Your task to perform on an android device: Search for "apple airpods" on target.com, select the first entry, and add it to the cart. Image 0: 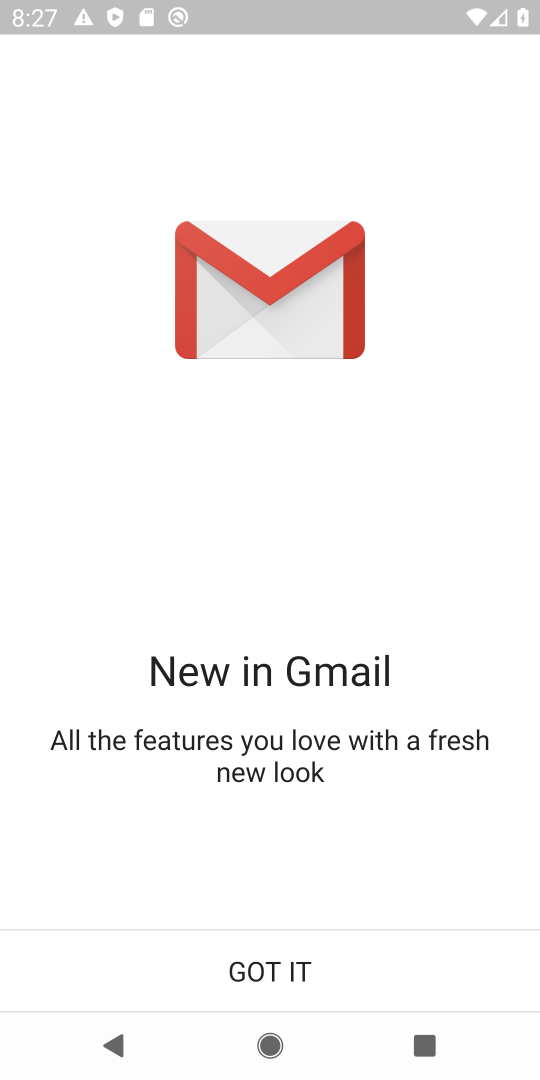
Step 0: click (307, 1003)
Your task to perform on an android device: Search for "apple airpods" on target.com, select the first entry, and add it to the cart. Image 1: 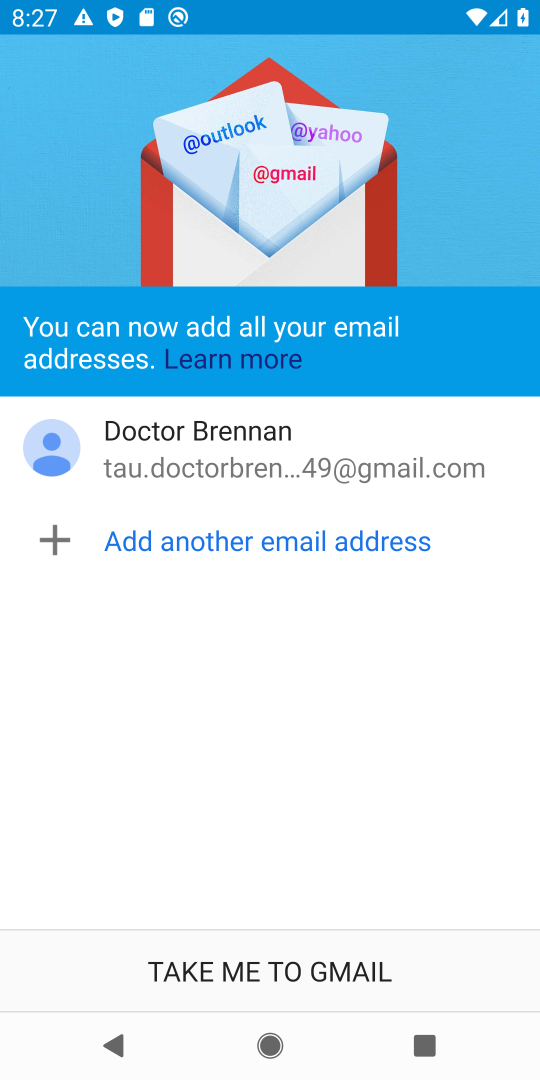
Step 1: press home button
Your task to perform on an android device: Search for "apple airpods" on target.com, select the first entry, and add it to the cart. Image 2: 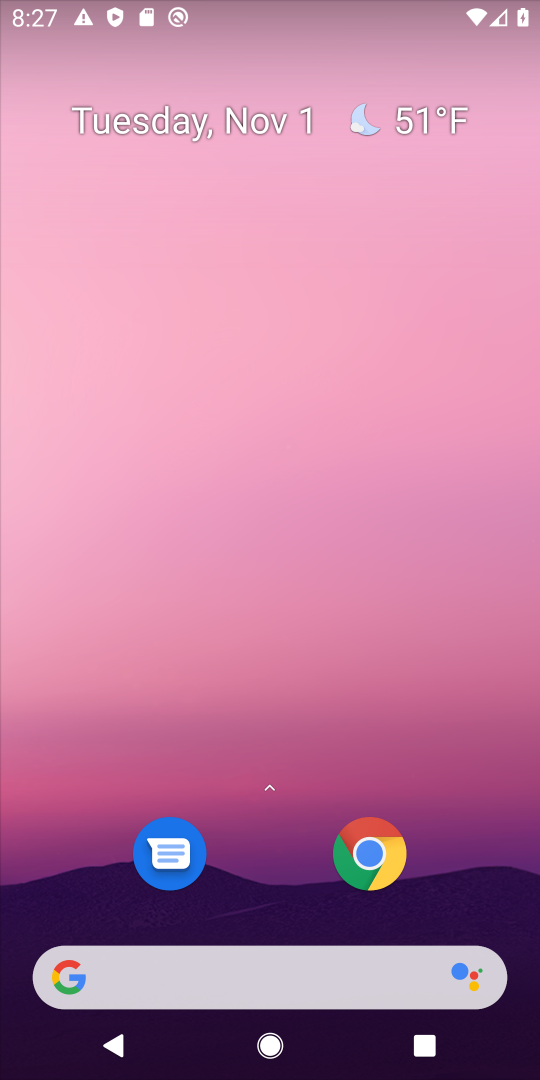
Step 2: click (241, 962)
Your task to perform on an android device: Search for "apple airpods" on target.com, select the first entry, and add it to the cart. Image 3: 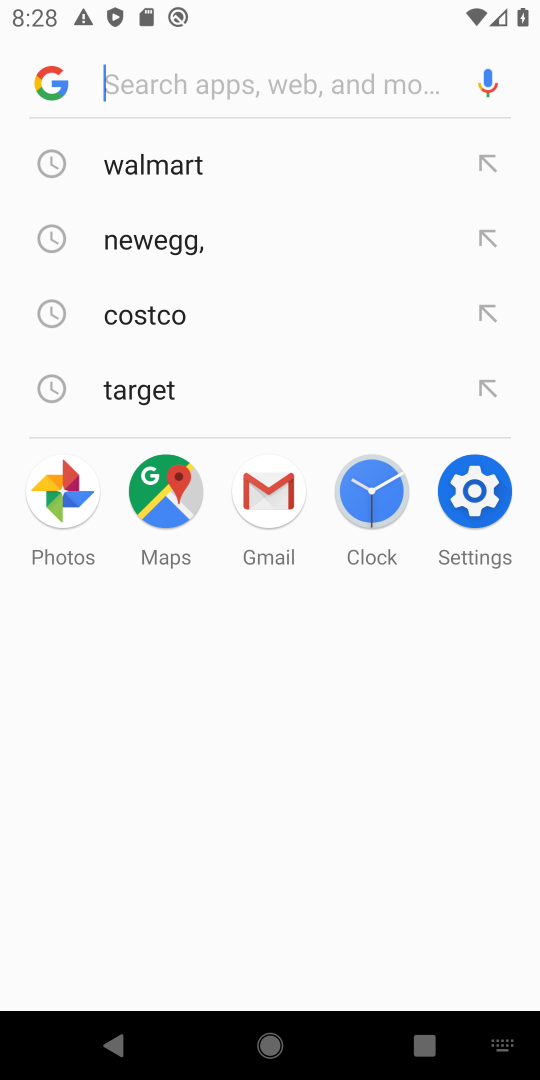
Step 3: click (260, 189)
Your task to perform on an android device: Search for "apple airpods" on target.com, select the first entry, and add it to the cart. Image 4: 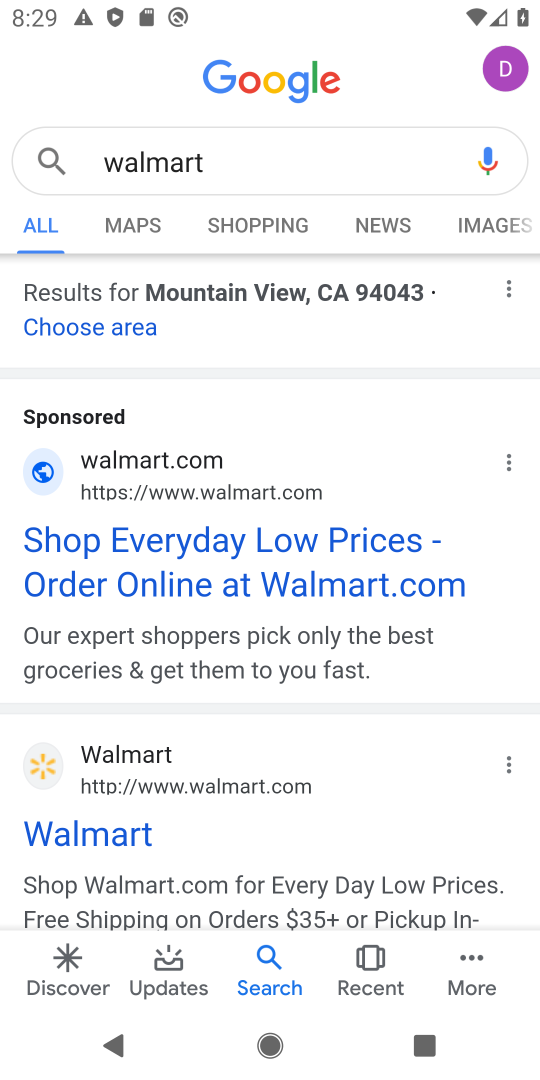
Step 4: click (147, 528)
Your task to perform on an android device: Search for "apple airpods" on target.com, select the first entry, and add it to the cart. Image 5: 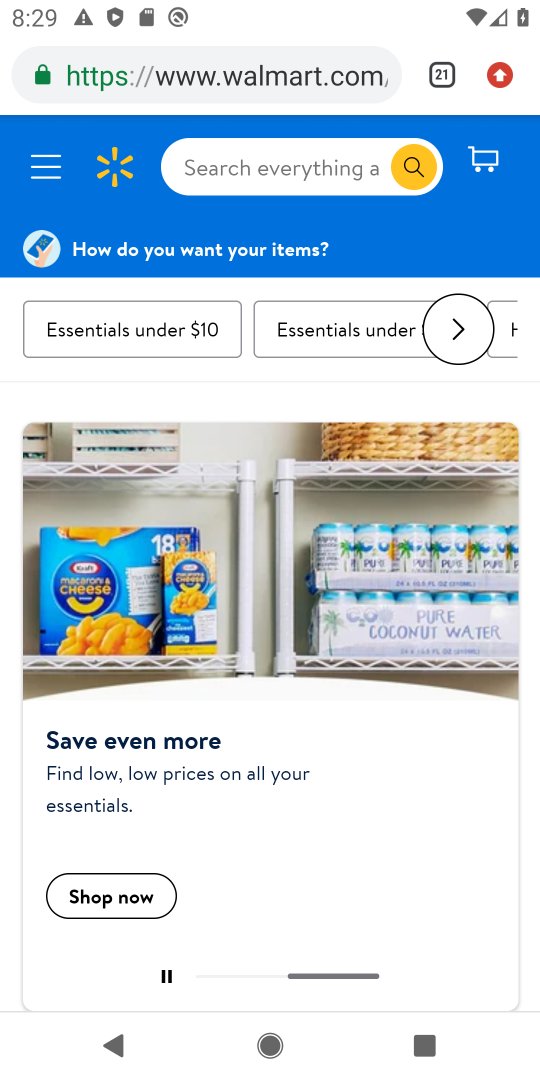
Step 5: click (307, 147)
Your task to perform on an android device: Search for "apple airpods" on target.com, select the first entry, and add it to the cart. Image 6: 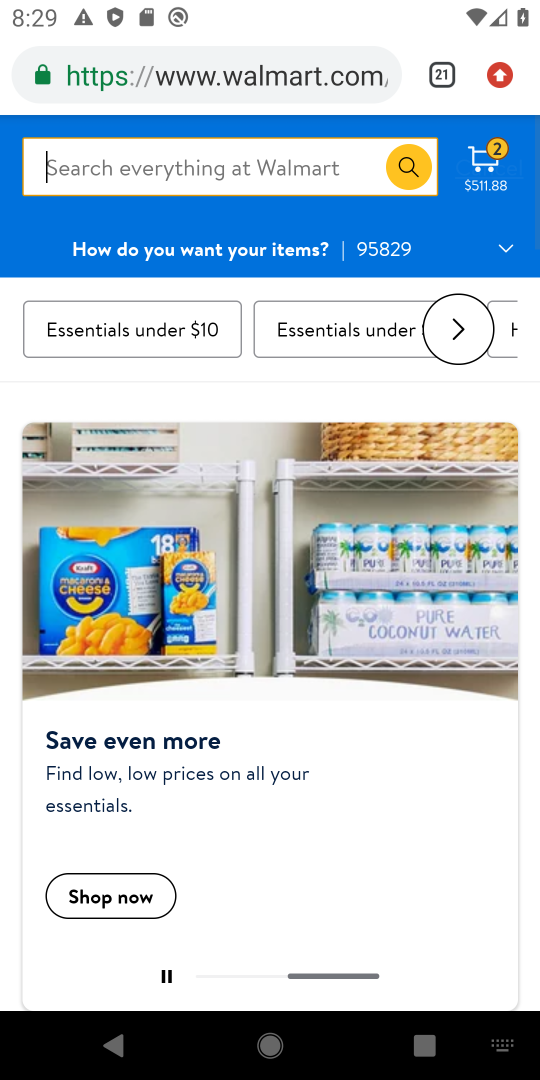
Step 6: type "apple airpod"
Your task to perform on an android device: Search for "apple airpods" on target.com, select the first entry, and add it to the cart. Image 7: 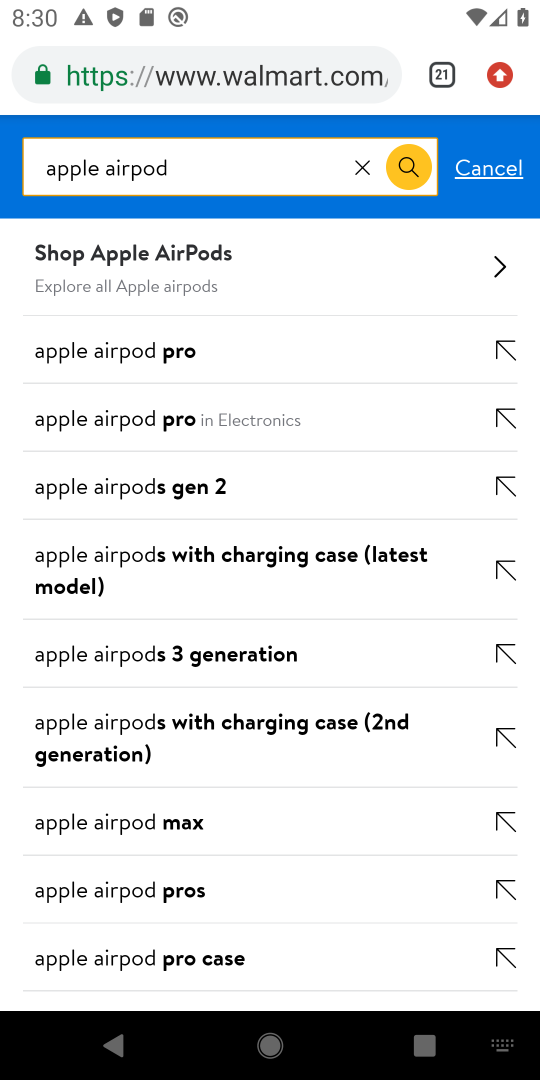
Step 7: click (426, 174)
Your task to perform on an android device: Search for "apple airpods" on target.com, select the first entry, and add it to the cart. Image 8: 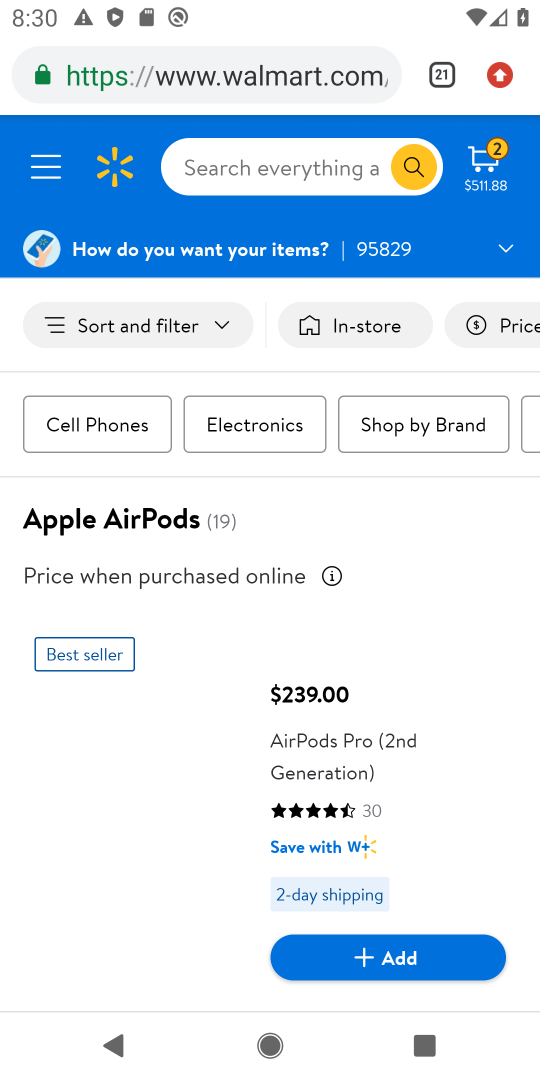
Step 8: click (371, 966)
Your task to perform on an android device: Search for "apple airpods" on target.com, select the first entry, and add it to the cart. Image 9: 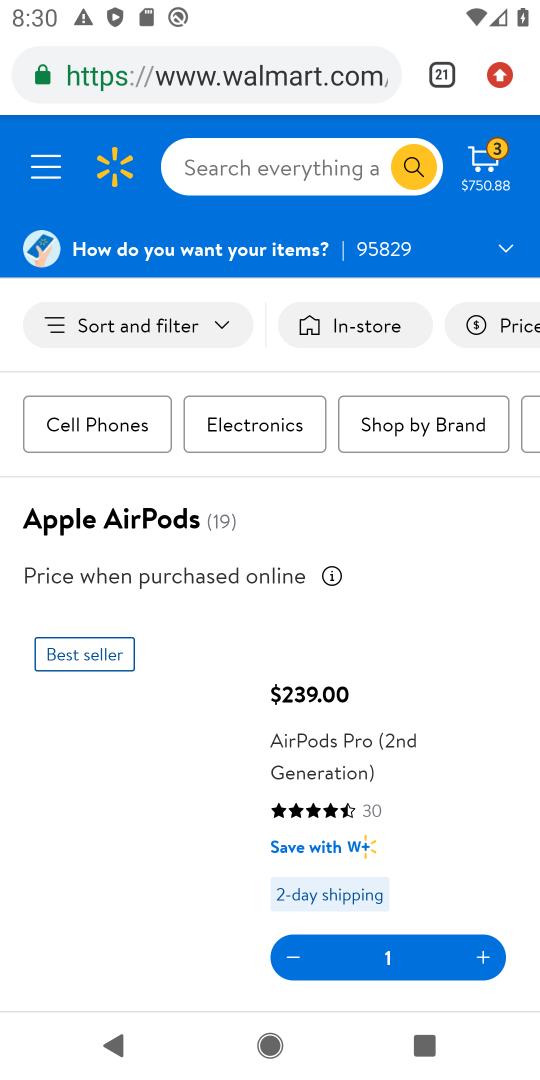
Step 9: task complete